Your task to perform on an android device: Open settings on Google Maps Image 0: 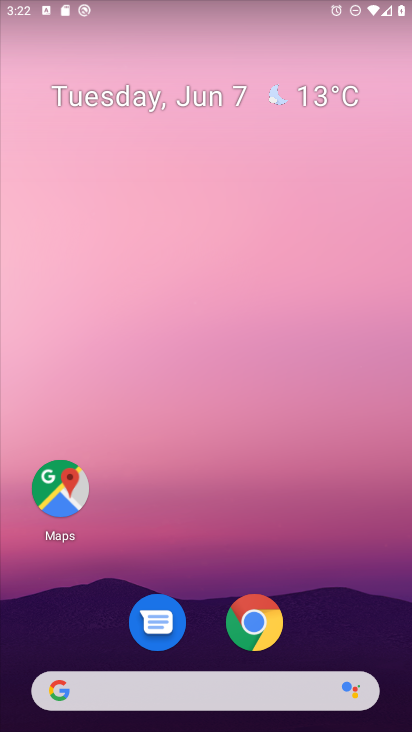
Step 0: click (62, 476)
Your task to perform on an android device: Open settings on Google Maps Image 1: 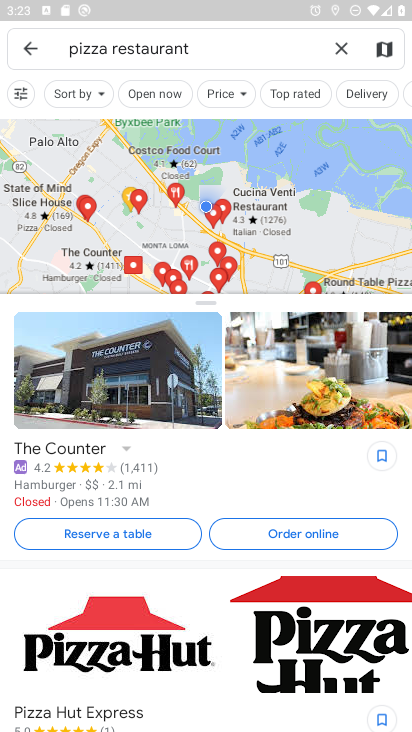
Step 1: click (27, 41)
Your task to perform on an android device: Open settings on Google Maps Image 2: 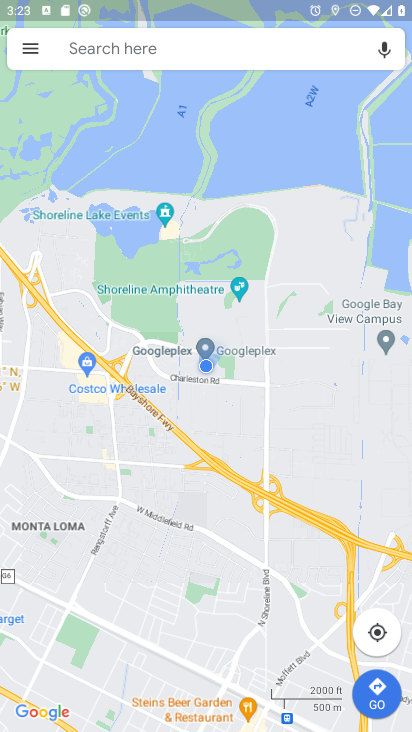
Step 2: click (30, 49)
Your task to perform on an android device: Open settings on Google Maps Image 3: 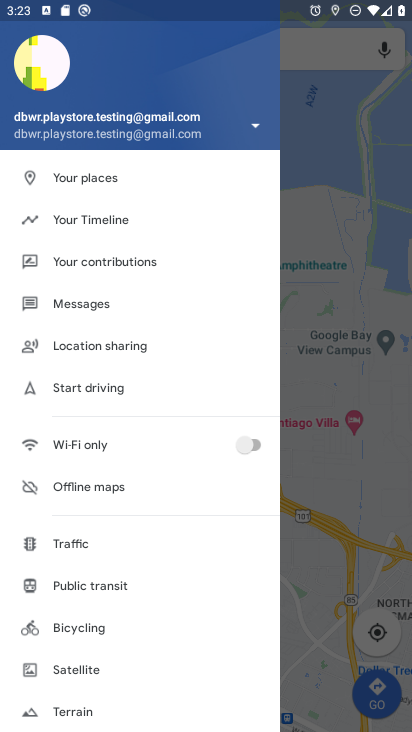
Step 3: drag from (106, 650) to (73, 333)
Your task to perform on an android device: Open settings on Google Maps Image 4: 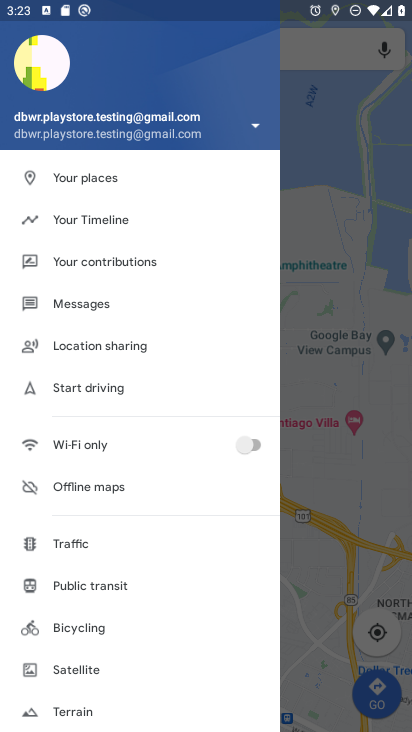
Step 4: drag from (148, 648) to (171, 377)
Your task to perform on an android device: Open settings on Google Maps Image 5: 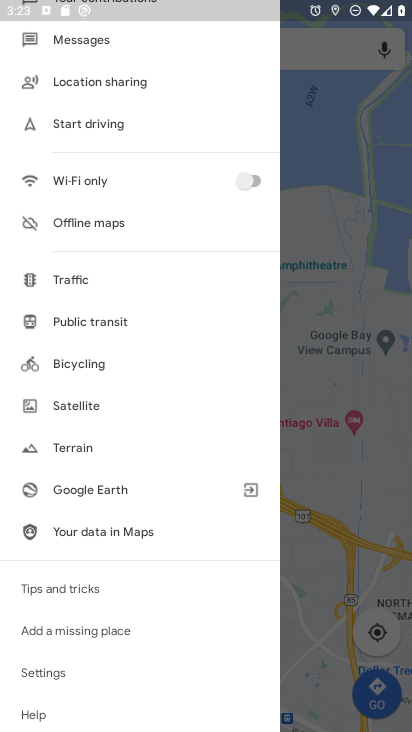
Step 5: click (41, 675)
Your task to perform on an android device: Open settings on Google Maps Image 6: 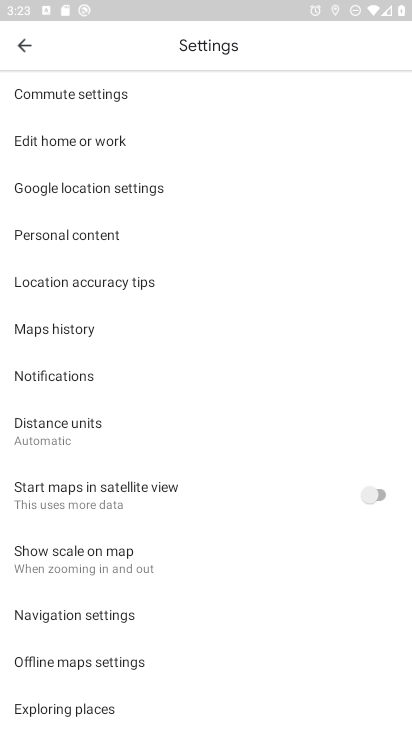
Step 6: task complete